Your task to perform on an android device: Search for the best rated mechanical keyboard on Amazon. Image 0: 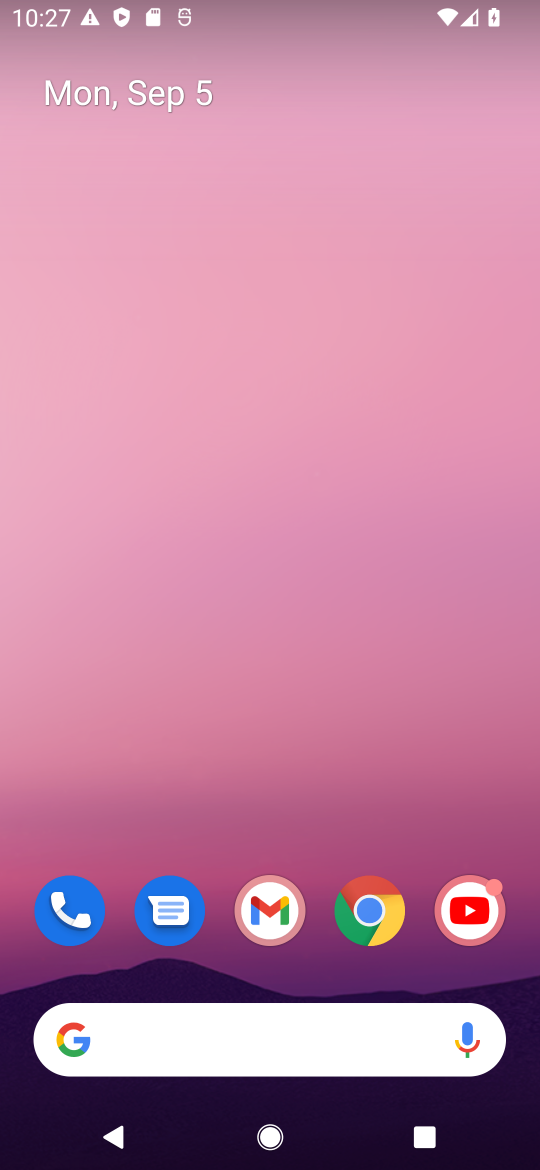
Step 0: click (363, 892)
Your task to perform on an android device: Search for the best rated mechanical keyboard on Amazon. Image 1: 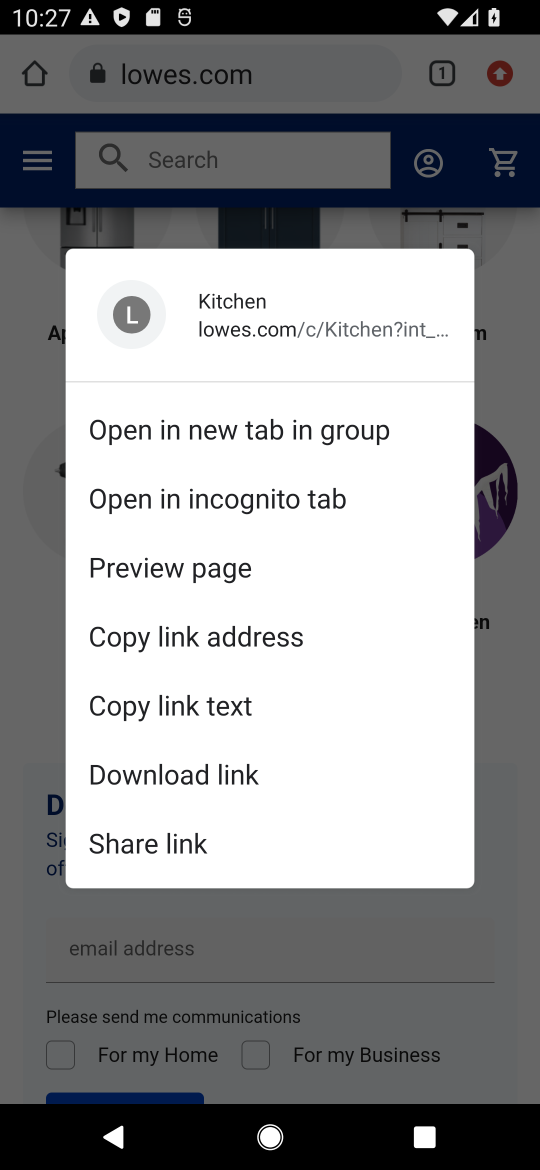
Step 1: press back button
Your task to perform on an android device: Search for the best rated mechanical keyboard on Amazon. Image 2: 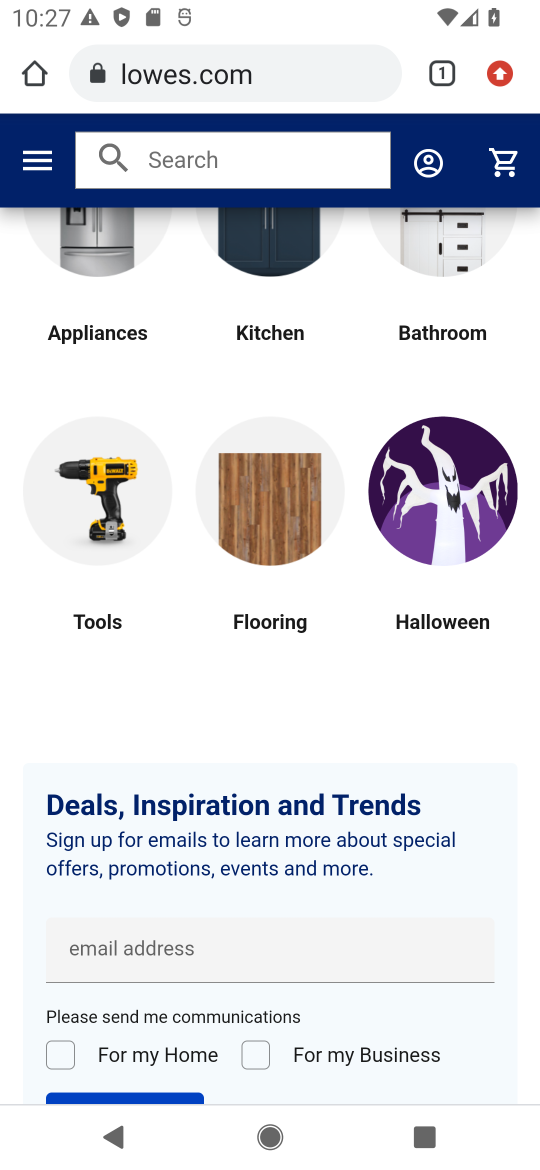
Step 2: click (238, 53)
Your task to perform on an android device: Search for the best rated mechanical keyboard on Amazon. Image 3: 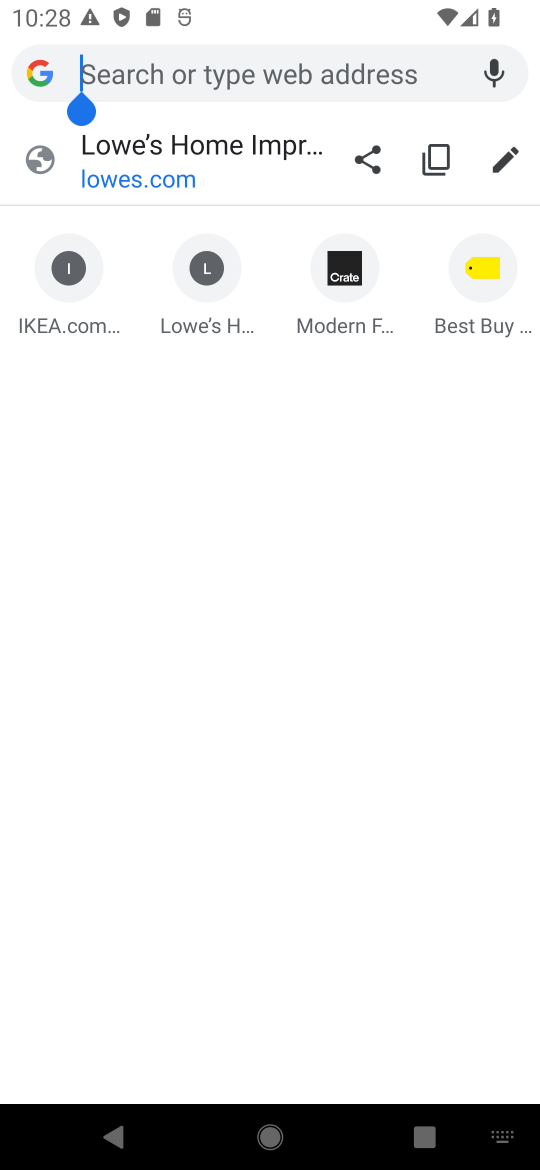
Step 3: type ""
Your task to perform on an android device: Search for the best rated mechanical keyboard on Amazon. Image 4: 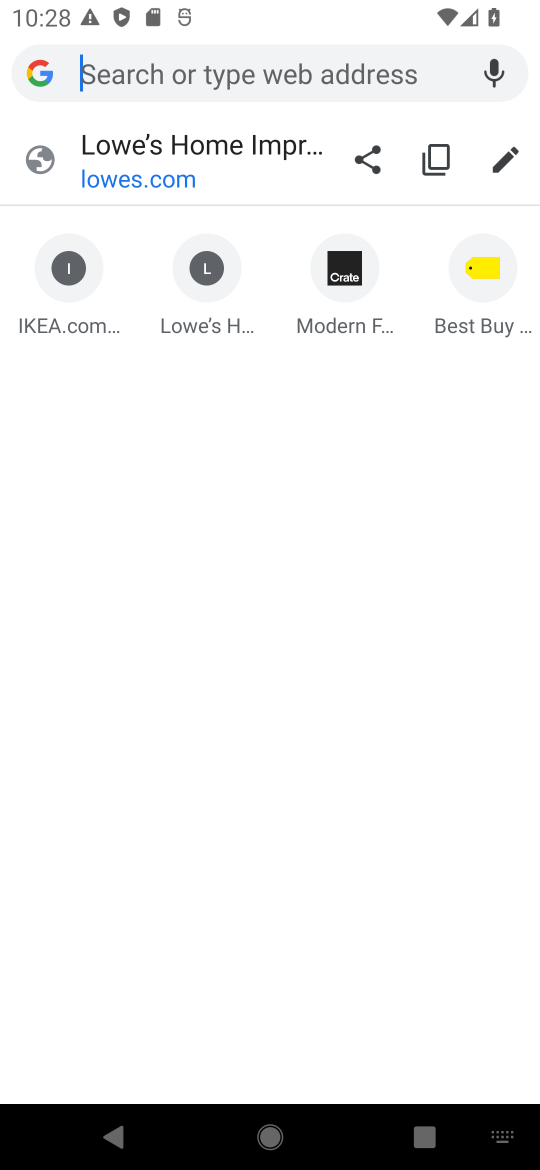
Step 4: type "amazon"
Your task to perform on an android device: Search for the best rated mechanical keyboard on Amazon. Image 5: 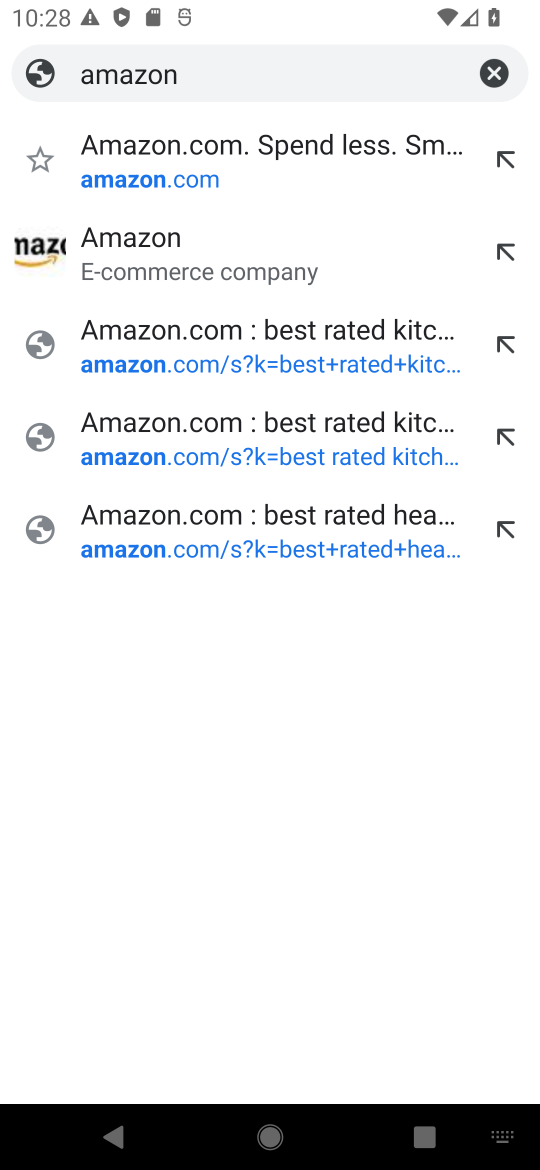
Step 5: click (154, 161)
Your task to perform on an android device: Search for the best rated mechanical keyboard on Amazon. Image 6: 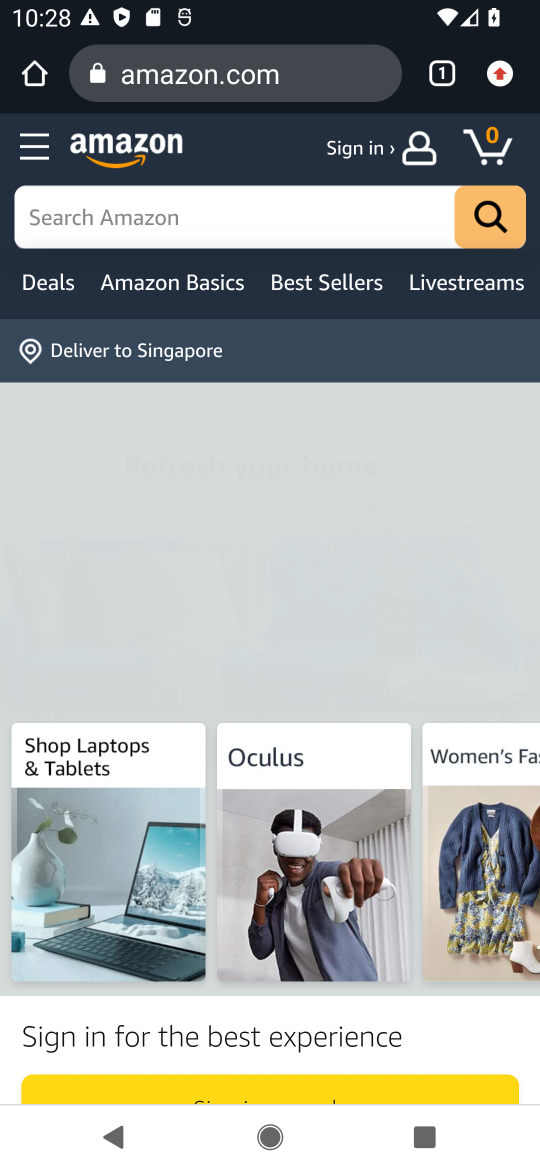
Step 6: click (284, 247)
Your task to perform on an android device: Search for the best rated mechanical keyboard on Amazon. Image 7: 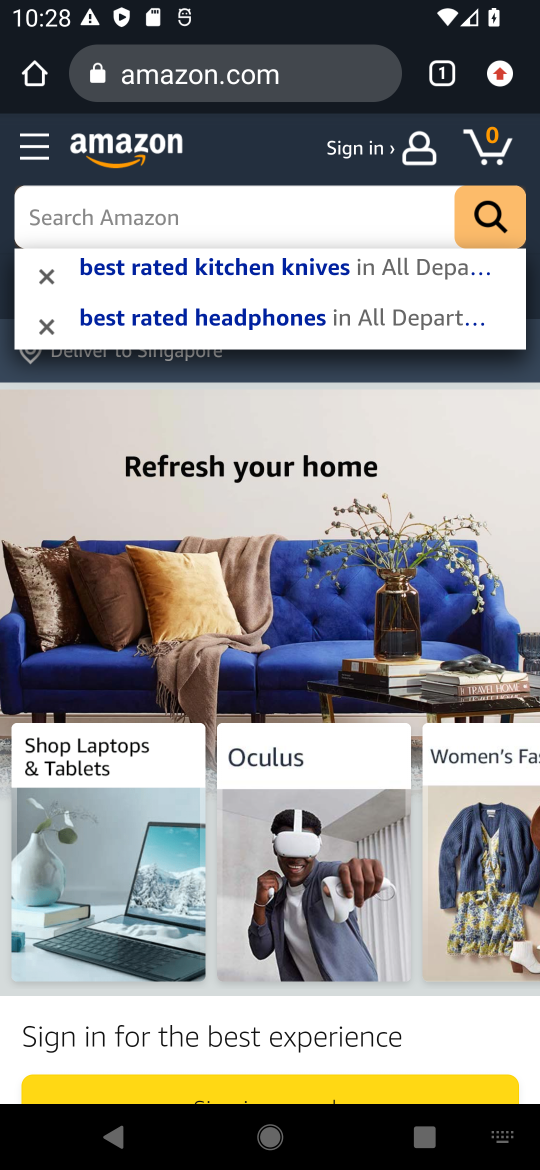
Step 7: type "best rated mechanical keyboard"
Your task to perform on an android device: Search for the best rated mechanical keyboard on Amazon. Image 8: 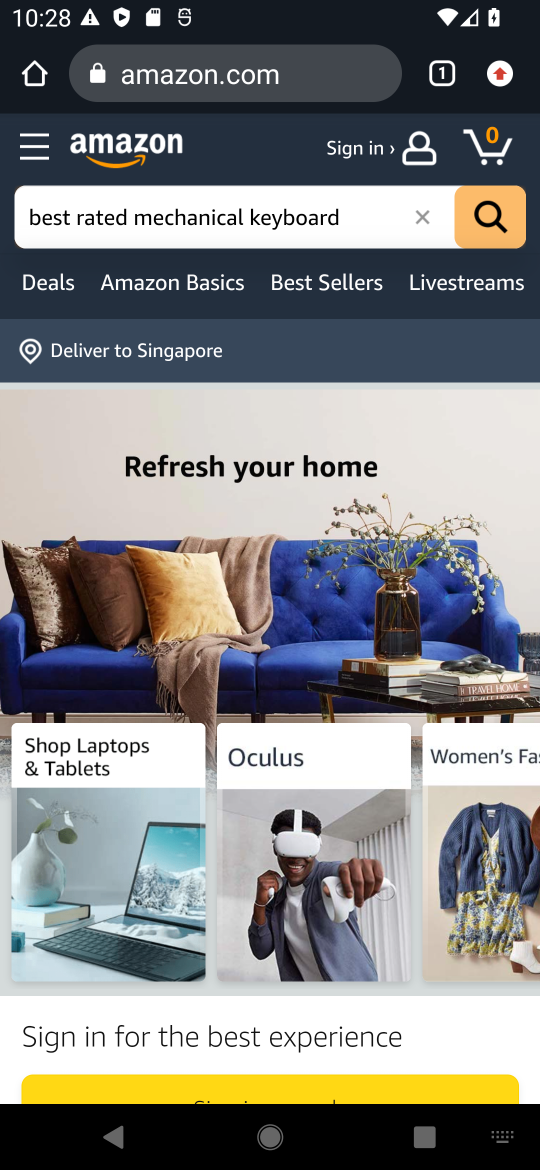
Step 8: press enter
Your task to perform on an android device: Search for the best rated mechanical keyboard on Amazon. Image 9: 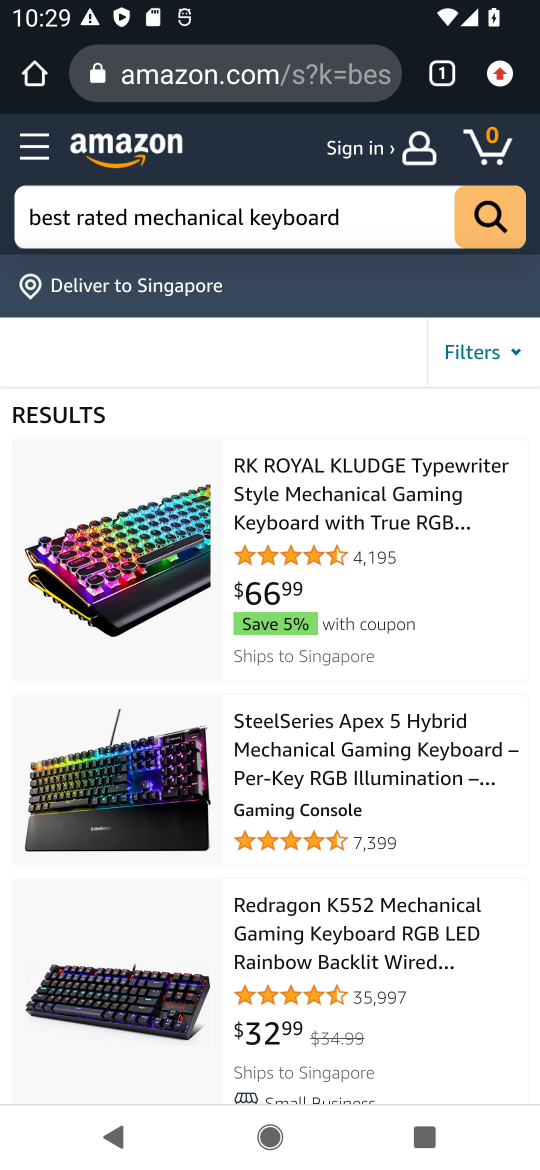
Step 9: task complete